Your task to perform on an android device: turn vacation reply on in the gmail app Image 0: 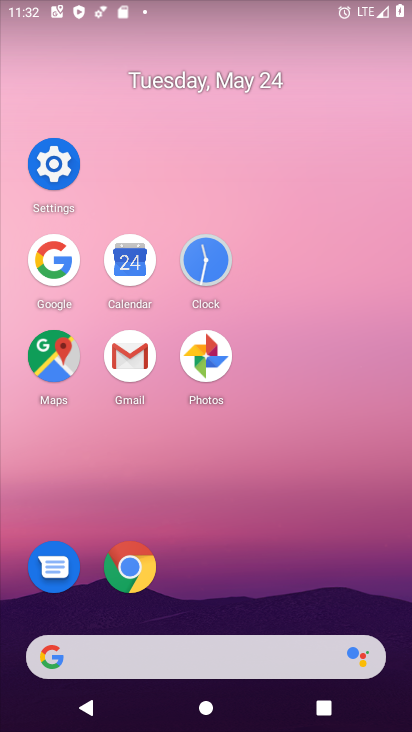
Step 0: click (128, 349)
Your task to perform on an android device: turn vacation reply on in the gmail app Image 1: 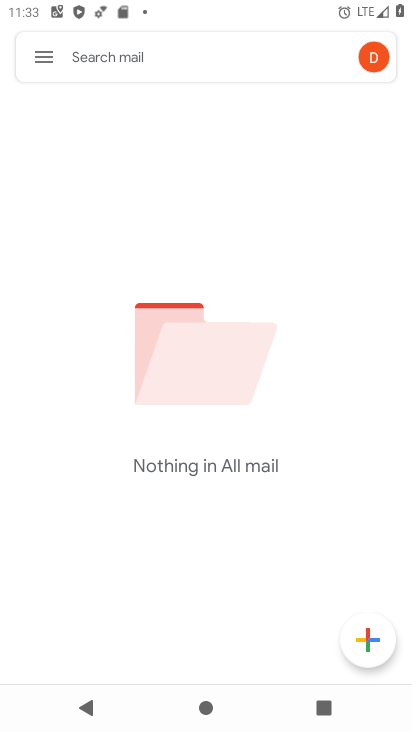
Step 1: click (34, 55)
Your task to perform on an android device: turn vacation reply on in the gmail app Image 2: 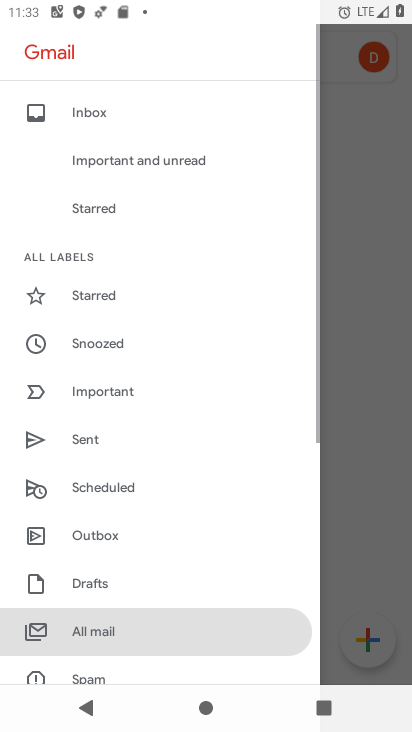
Step 2: drag from (169, 590) to (232, 173)
Your task to perform on an android device: turn vacation reply on in the gmail app Image 3: 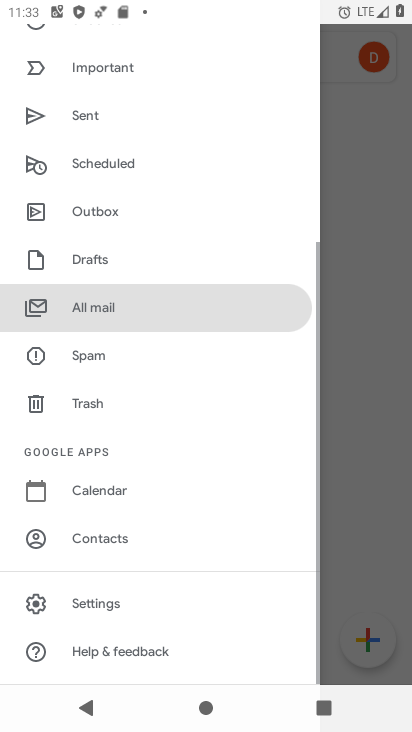
Step 3: click (63, 612)
Your task to perform on an android device: turn vacation reply on in the gmail app Image 4: 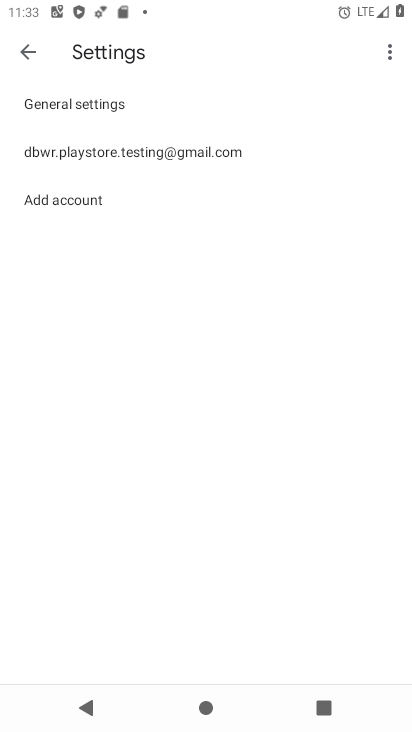
Step 4: click (186, 147)
Your task to perform on an android device: turn vacation reply on in the gmail app Image 5: 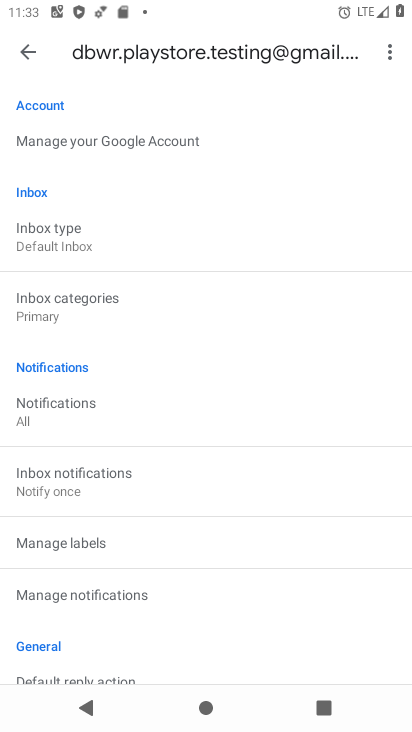
Step 5: drag from (131, 580) to (222, 176)
Your task to perform on an android device: turn vacation reply on in the gmail app Image 6: 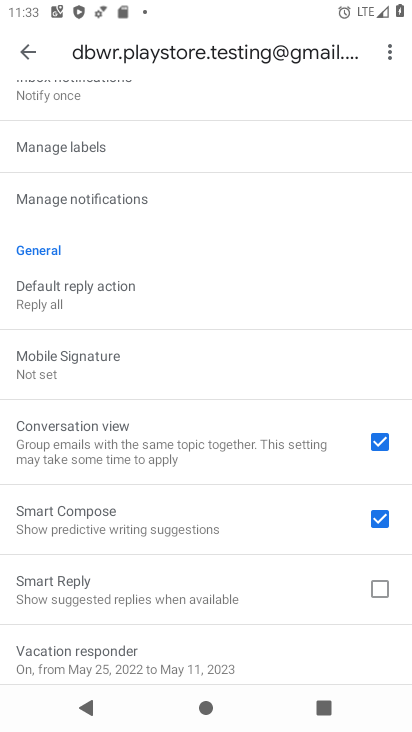
Step 6: drag from (204, 598) to (240, 290)
Your task to perform on an android device: turn vacation reply on in the gmail app Image 7: 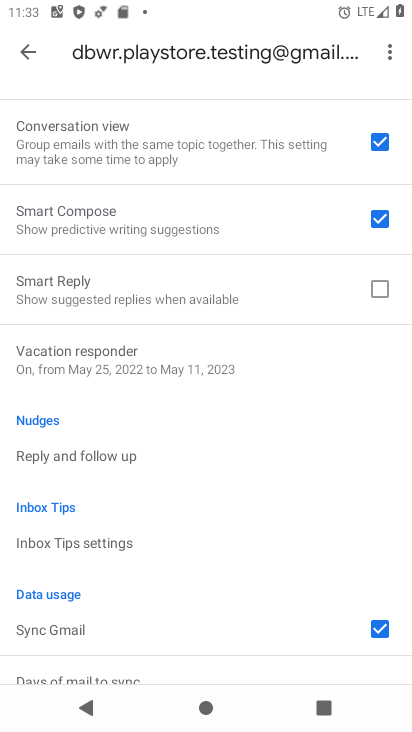
Step 7: click (200, 356)
Your task to perform on an android device: turn vacation reply on in the gmail app Image 8: 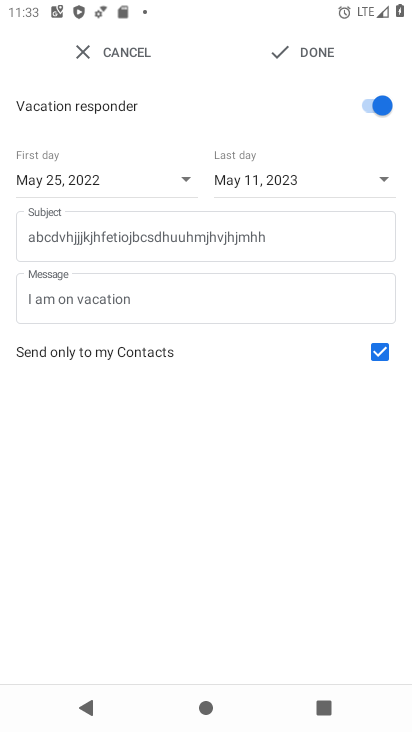
Step 8: click (318, 42)
Your task to perform on an android device: turn vacation reply on in the gmail app Image 9: 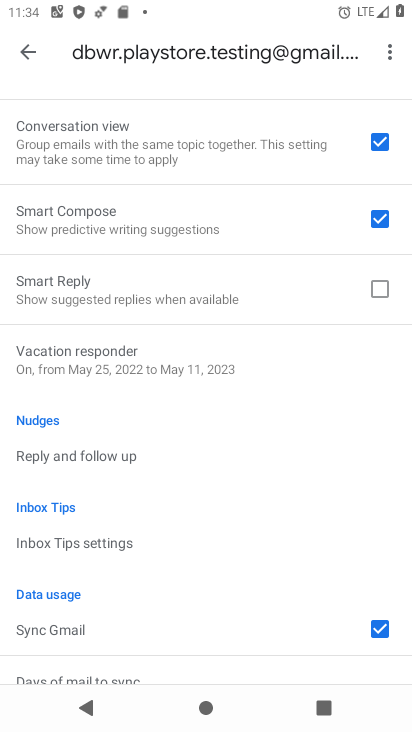
Step 9: task complete